Your task to perform on an android device: Go to network settings Image 0: 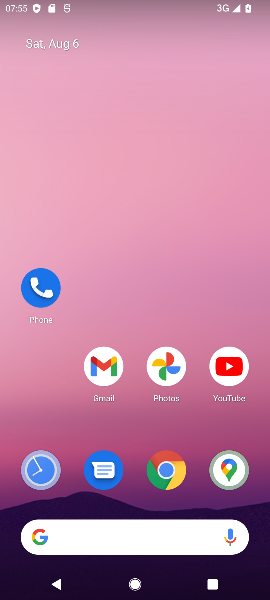
Step 0: press home button
Your task to perform on an android device: Go to network settings Image 1: 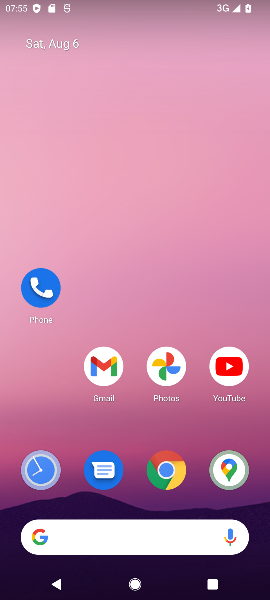
Step 1: drag from (193, 419) to (200, 12)
Your task to perform on an android device: Go to network settings Image 2: 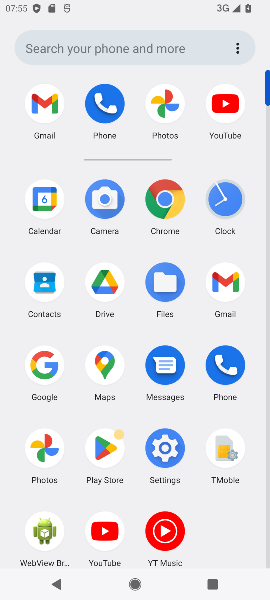
Step 2: click (164, 467)
Your task to perform on an android device: Go to network settings Image 3: 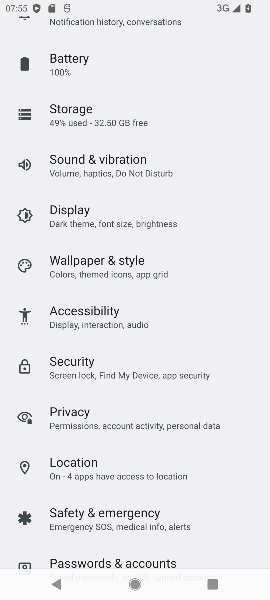
Step 3: drag from (156, 157) to (117, 599)
Your task to perform on an android device: Go to network settings Image 4: 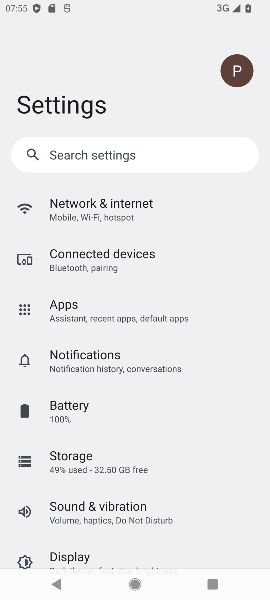
Step 4: click (120, 212)
Your task to perform on an android device: Go to network settings Image 5: 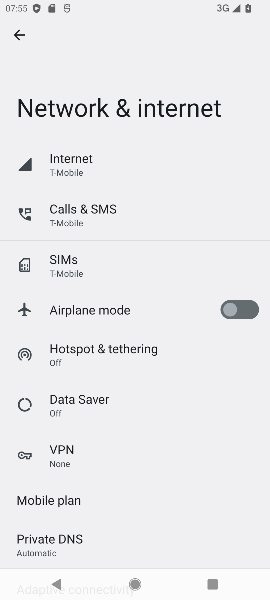
Step 5: task complete